Your task to perform on an android device: Go to location settings Image 0: 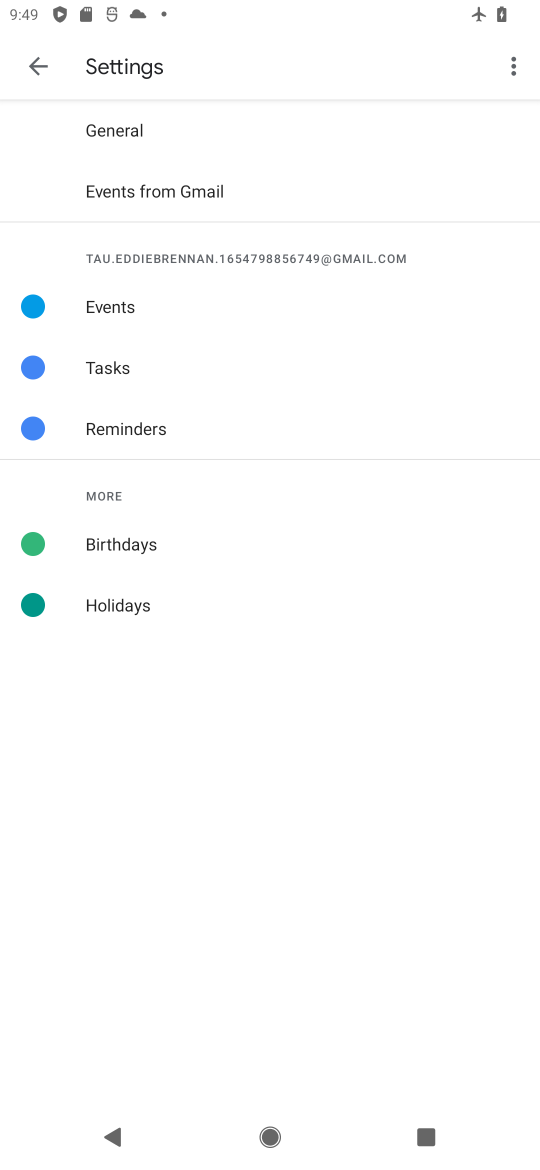
Step 0: press home button
Your task to perform on an android device: Go to location settings Image 1: 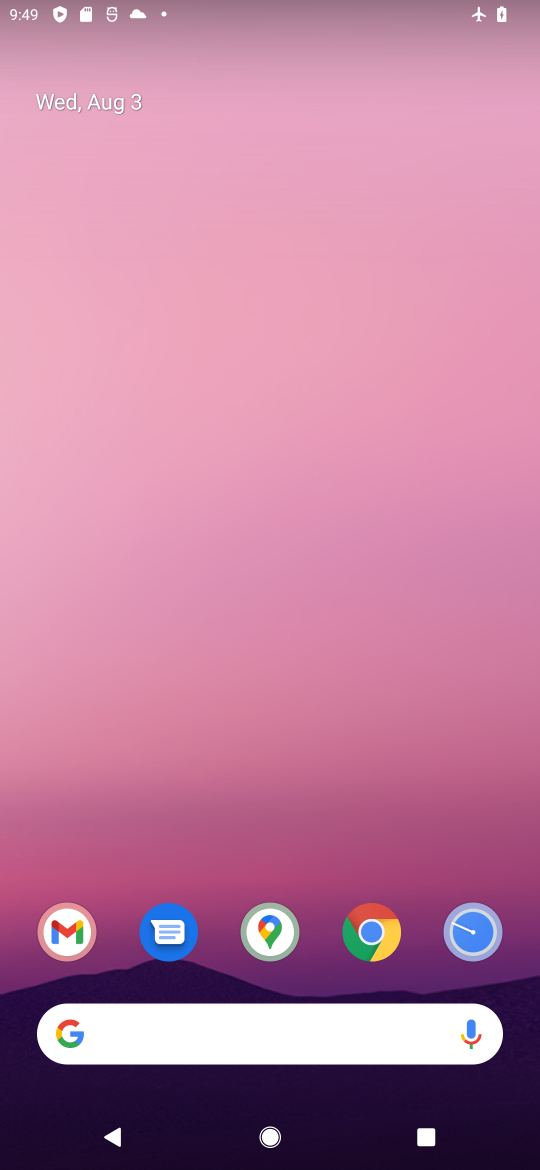
Step 1: drag from (266, 388) to (190, 0)
Your task to perform on an android device: Go to location settings Image 2: 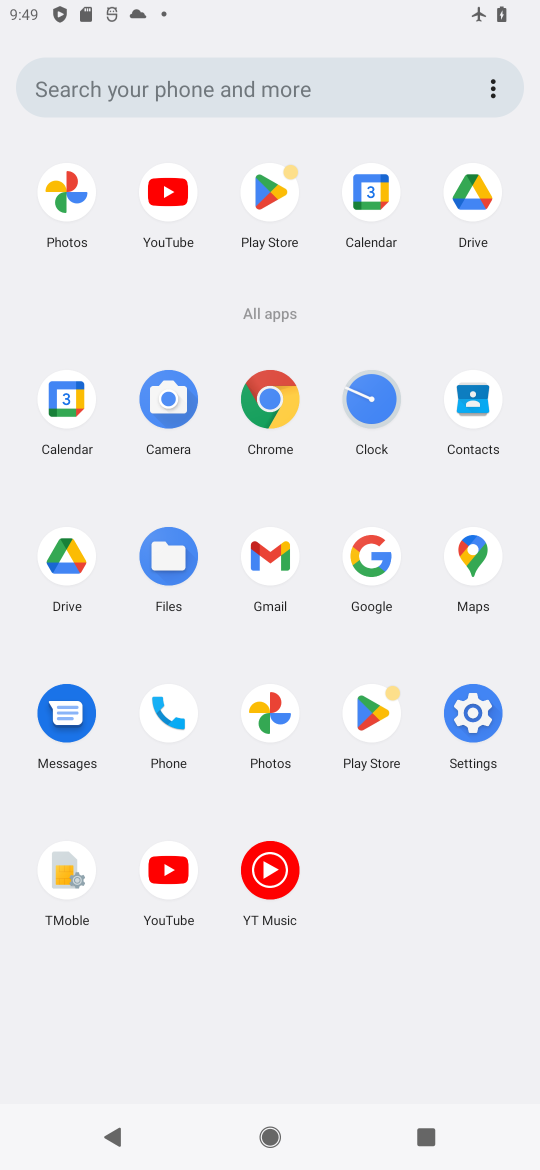
Step 2: click (476, 804)
Your task to perform on an android device: Go to location settings Image 3: 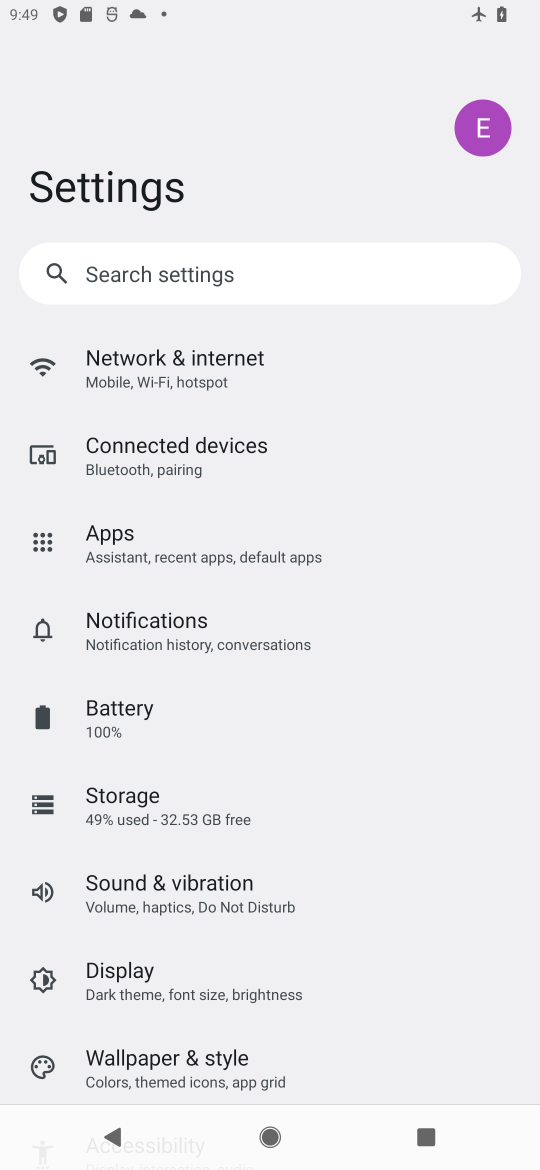
Step 3: drag from (315, 1040) to (177, 105)
Your task to perform on an android device: Go to location settings Image 4: 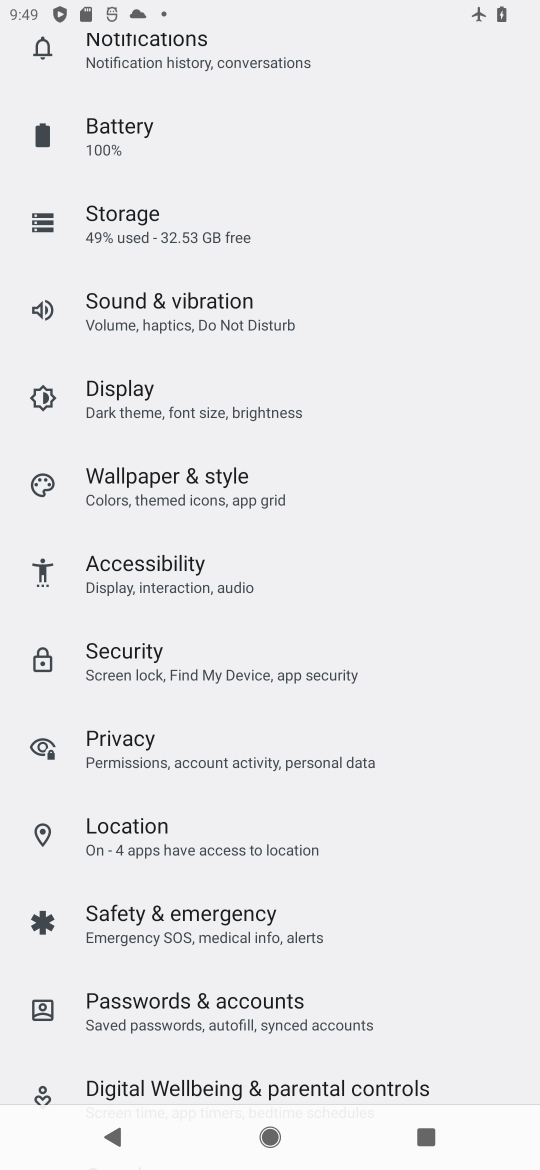
Step 4: click (248, 838)
Your task to perform on an android device: Go to location settings Image 5: 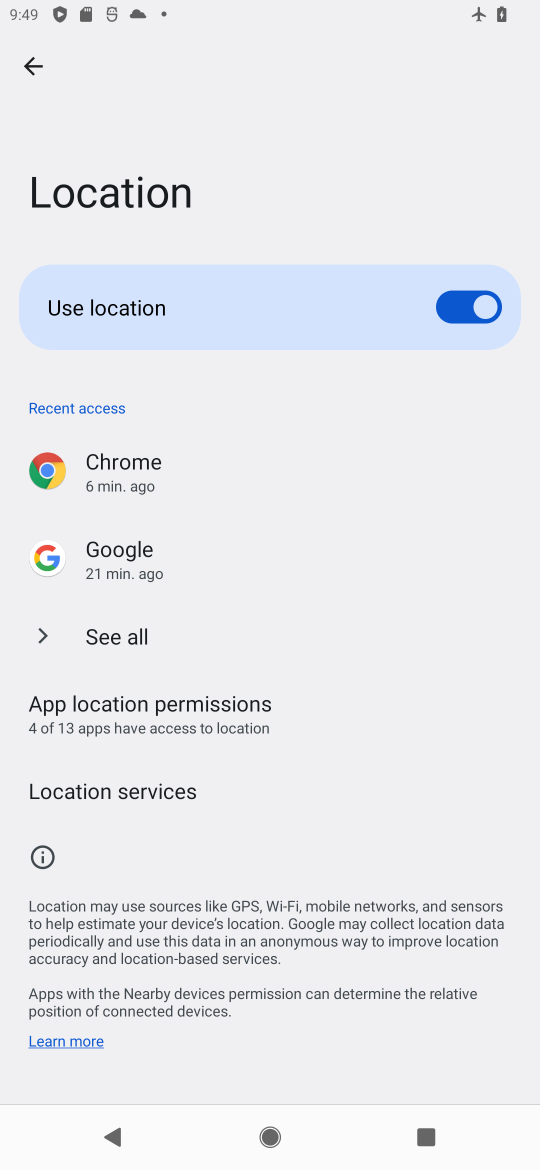
Step 5: task complete